Your task to perform on an android device: empty trash in the gmail app Image 0: 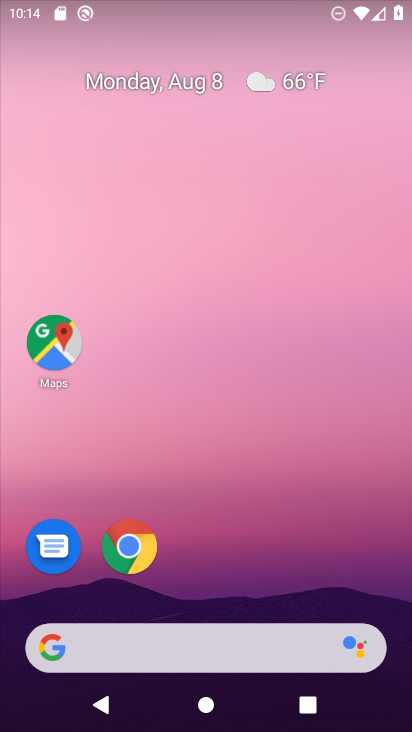
Step 0: drag from (226, 507) to (196, 121)
Your task to perform on an android device: empty trash in the gmail app Image 1: 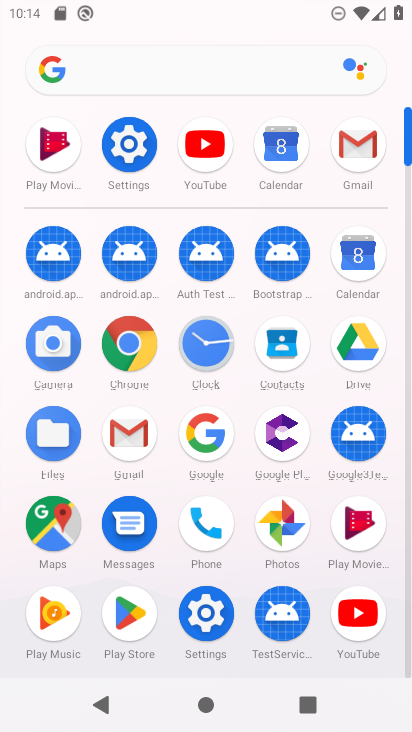
Step 1: click (123, 434)
Your task to perform on an android device: empty trash in the gmail app Image 2: 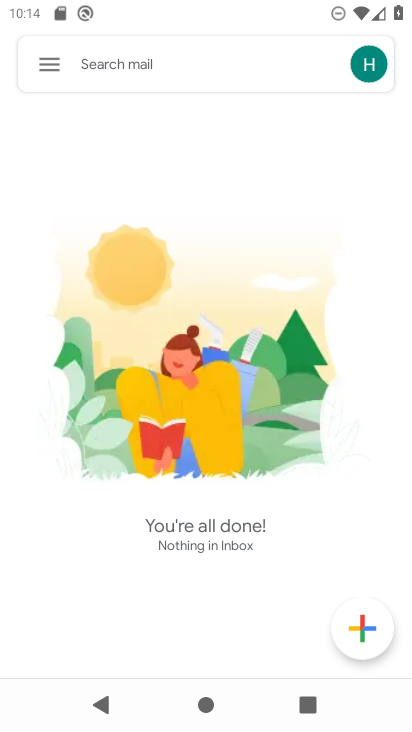
Step 2: task complete